Your task to perform on an android device: Go to accessibility settings Image 0: 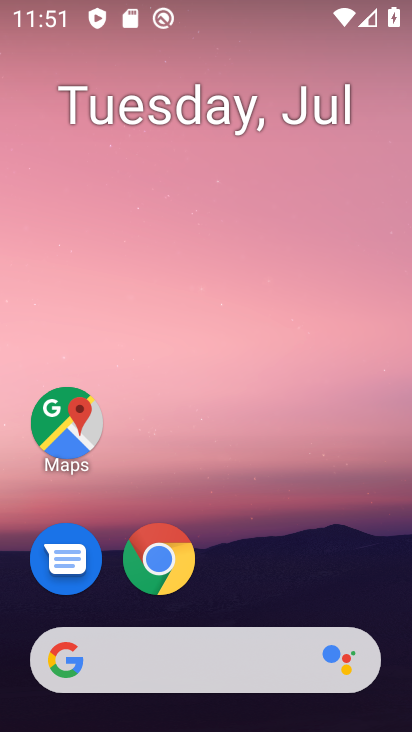
Step 0: drag from (251, 612) to (325, 16)
Your task to perform on an android device: Go to accessibility settings Image 1: 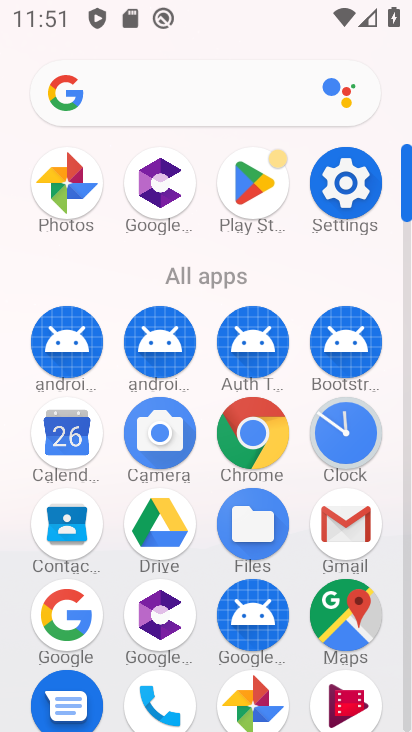
Step 1: click (352, 186)
Your task to perform on an android device: Go to accessibility settings Image 2: 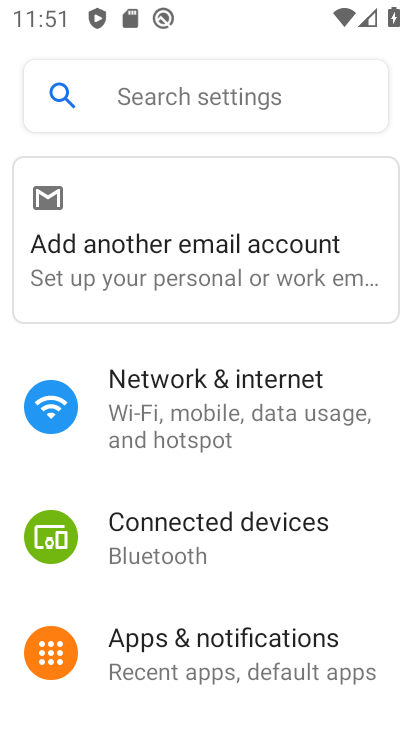
Step 2: drag from (165, 641) to (231, 136)
Your task to perform on an android device: Go to accessibility settings Image 3: 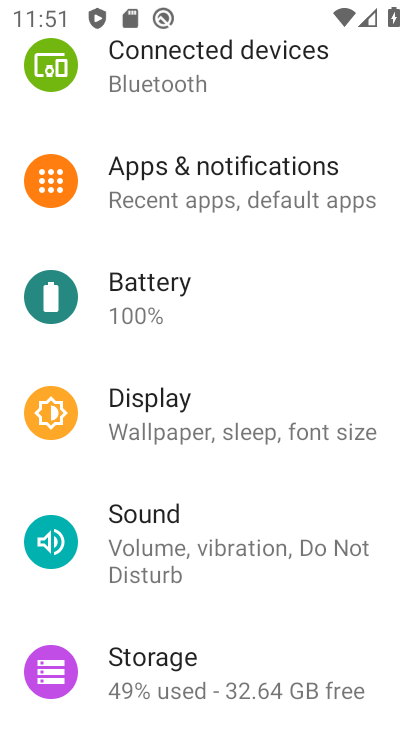
Step 3: drag from (165, 588) to (241, 84)
Your task to perform on an android device: Go to accessibility settings Image 4: 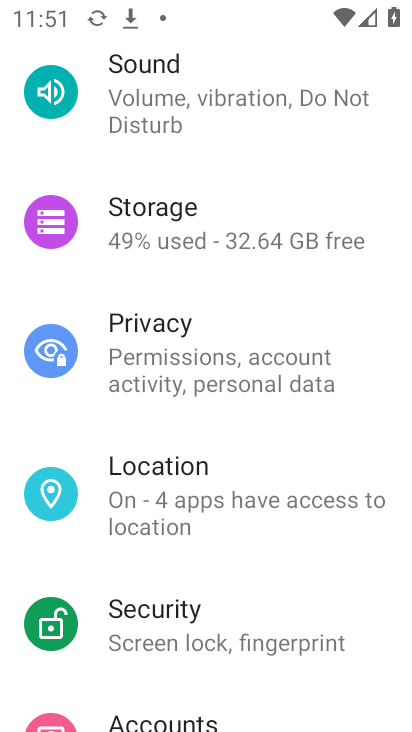
Step 4: drag from (172, 618) to (247, 162)
Your task to perform on an android device: Go to accessibility settings Image 5: 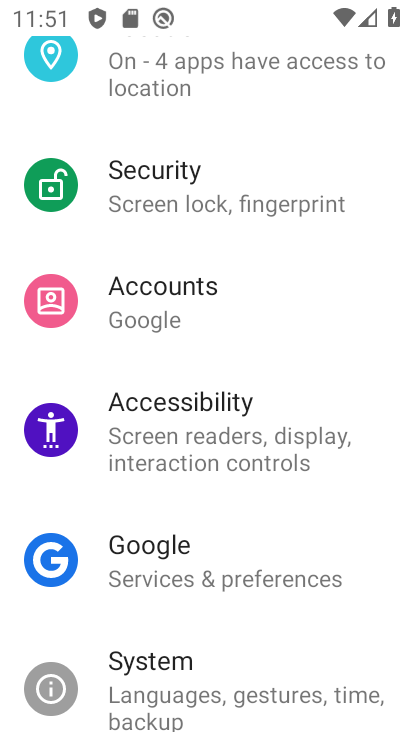
Step 5: click (175, 423)
Your task to perform on an android device: Go to accessibility settings Image 6: 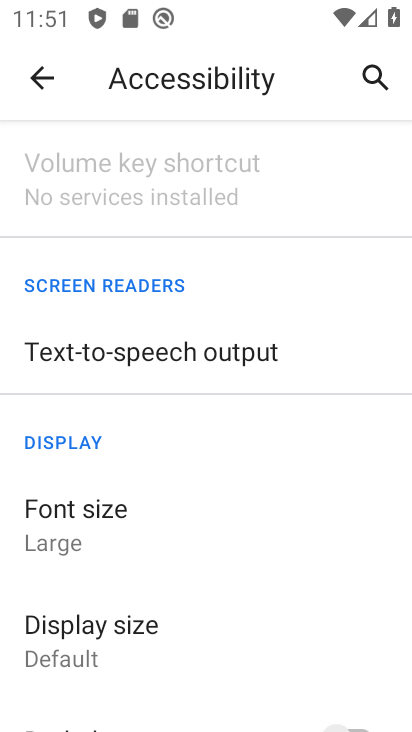
Step 6: task complete